Your task to perform on an android device: What's the weather today? Image 0: 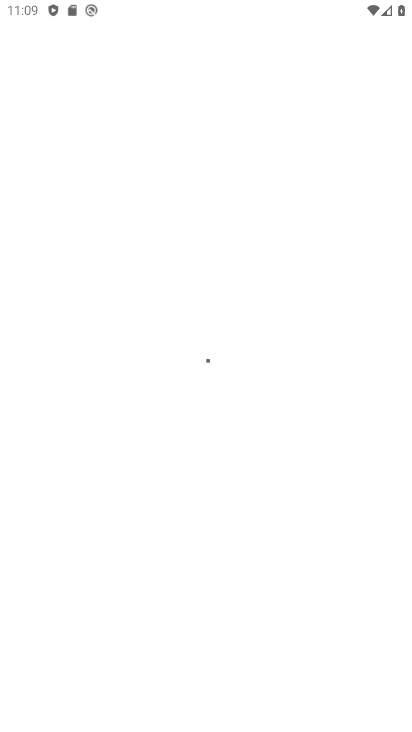
Step 0: press home button
Your task to perform on an android device: What's the weather today? Image 1: 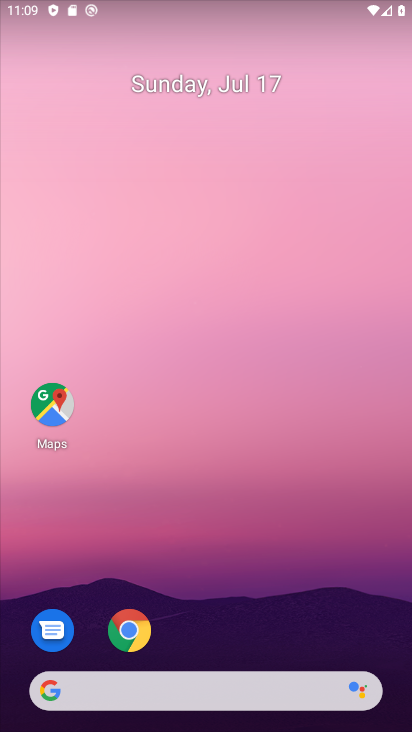
Step 1: drag from (210, 641) to (234, 179)
Your task to perform on an android device: What's the weather today? Image 2: 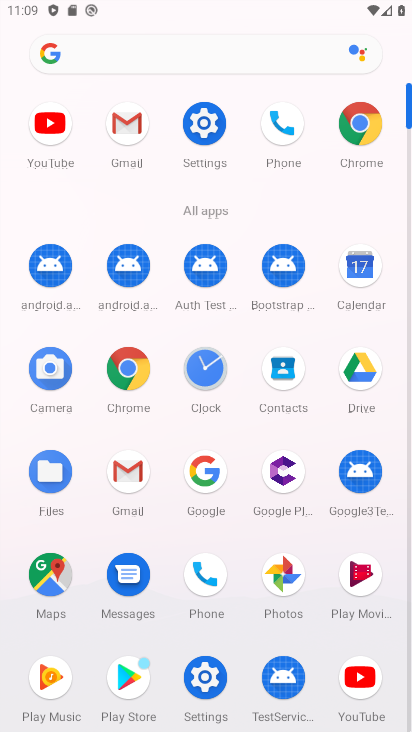
Step 2: click (184, 56)
Your task to perform on an android device: What's the weather today? Image 3: 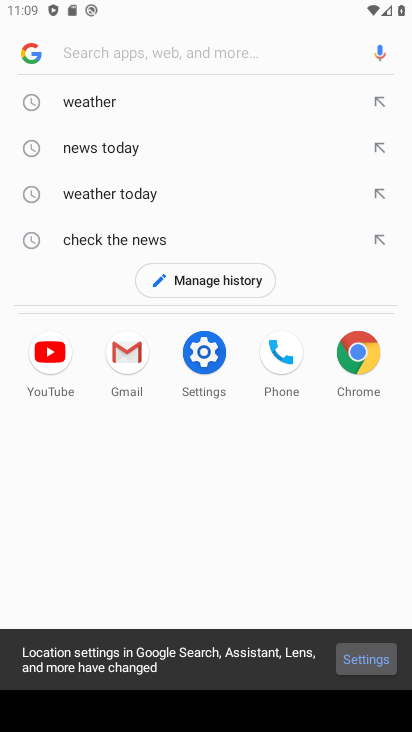
Step 3: click (97, 102)
Your task to perform on an android device: What's the weather today? Image 4: 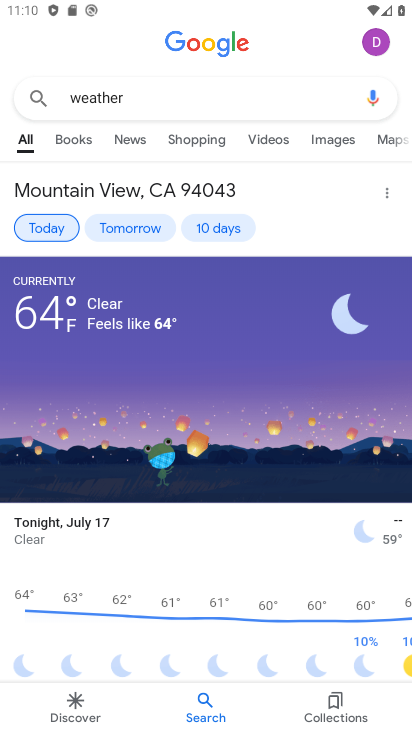
Step 4: task complete